Your task to perform on an android device: Go to internet settings Image 0: 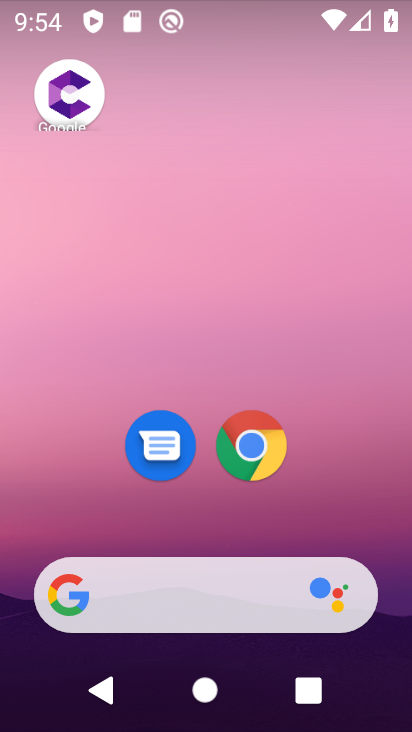
Step 0: drag from (87, 509) to (164, 196)
Your task to perform on an android device: Go to internet settings Image 1: 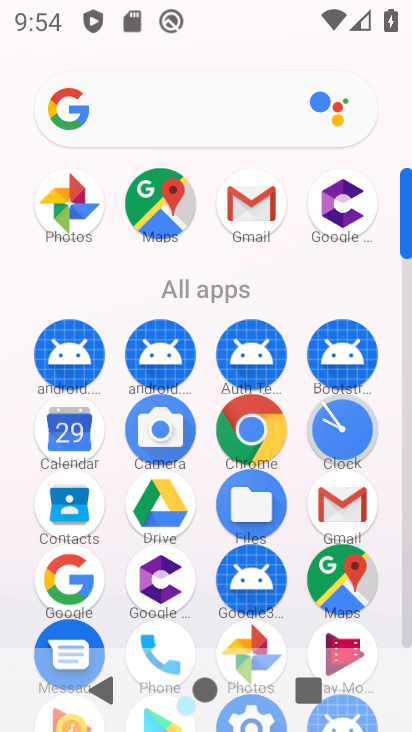
Step 1: drag from (142, 647) to (232, 370)
Your task to perform on an android device: Go to internet settings Image 2: 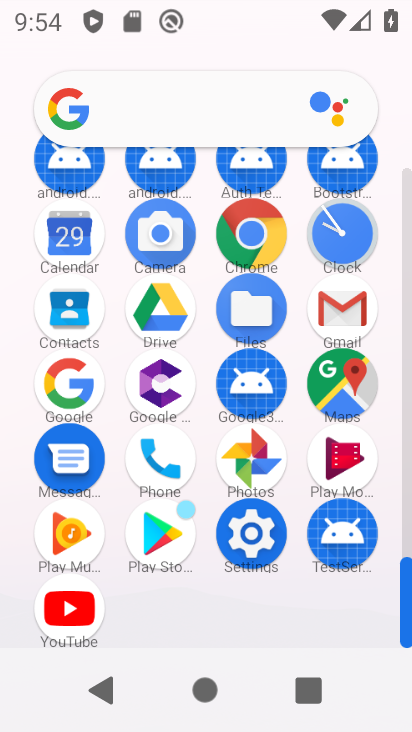
Step 2: click (257, 552)
Your task to perform on an android device: Go to internet settings Image 3: 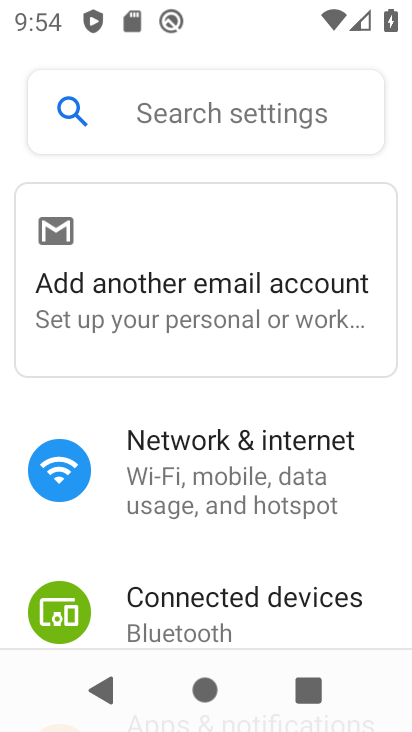
Step 3: click (267, 469)
Your task to perform on an android device: Go to internet settings Image 4: 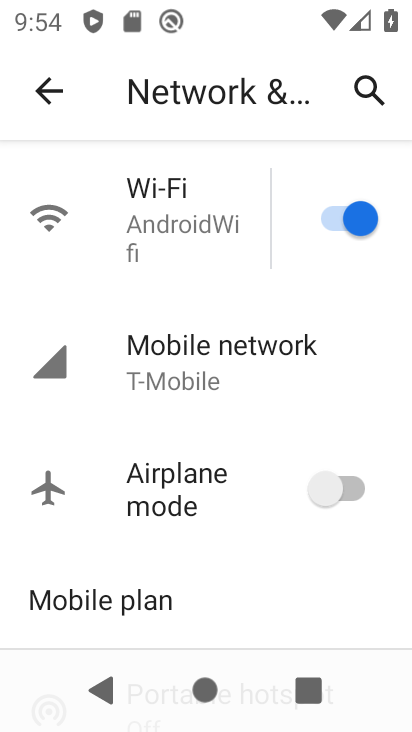
Step 4: click (266, 395)
Your task to perform on an android device: Go to internet settings Image 5: 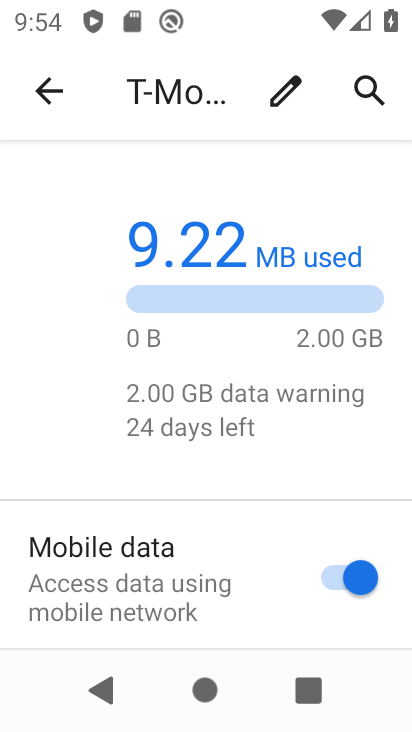
Step 5: task complete